Your task to perform on an android device: check out phone information Image 0: 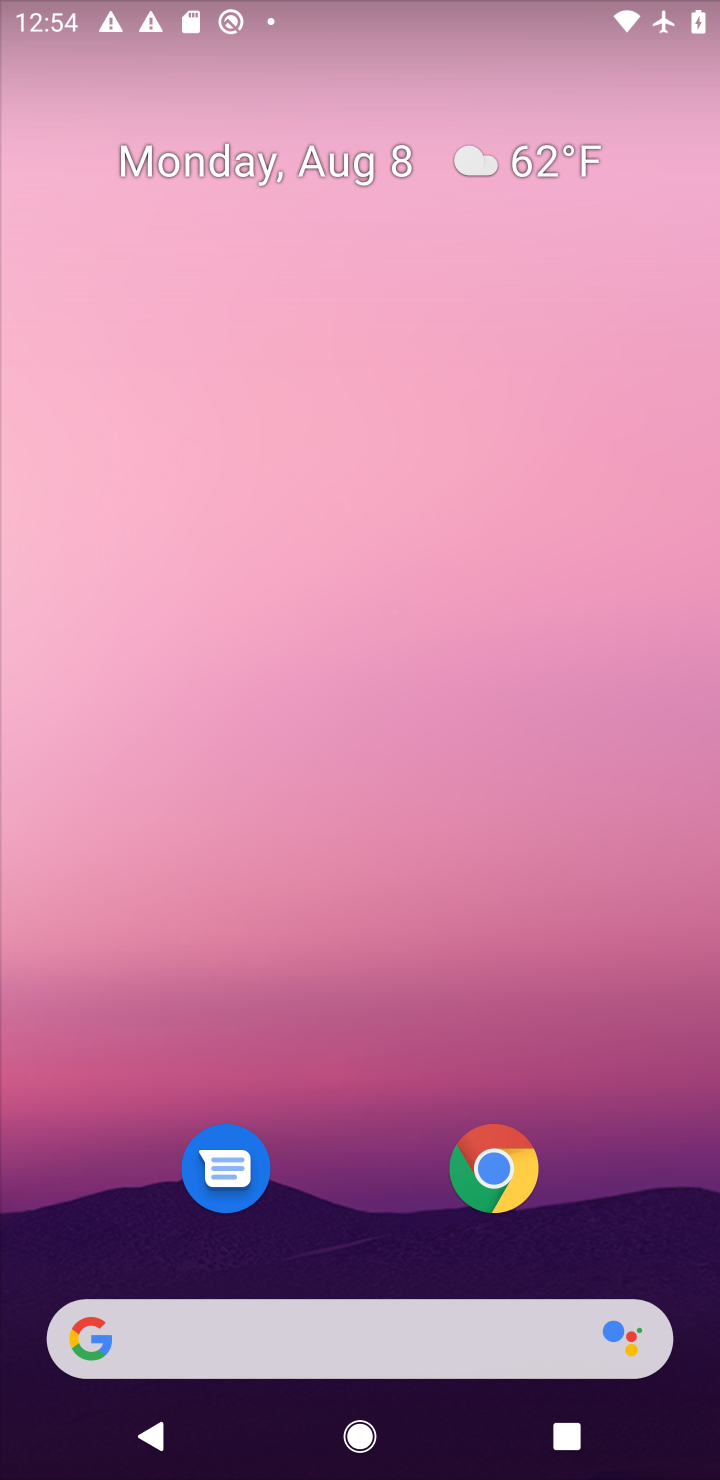
Step 0: drag from (377, 1277) to (366, 116)
Your task to perform on an android device: check out phone information Image 1: 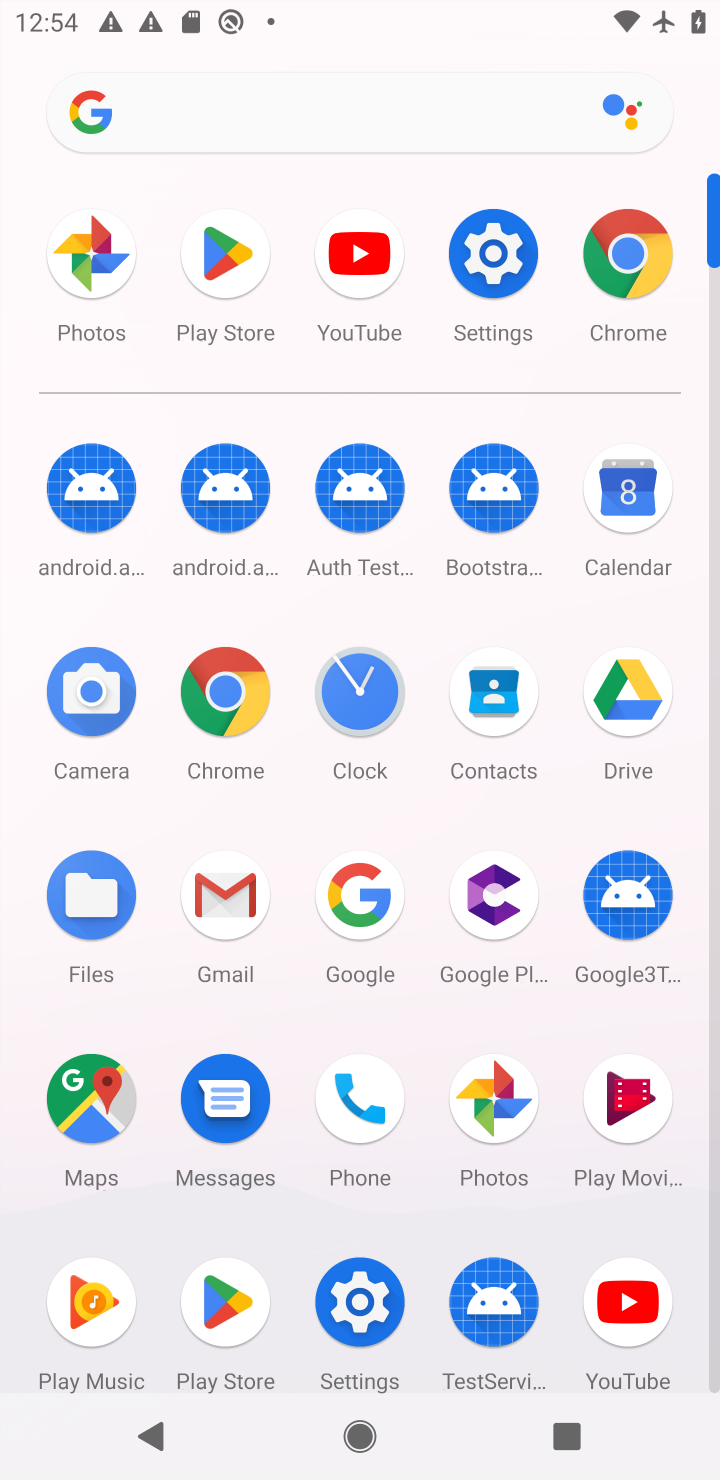
Step 1: click (470, 280)
Your task to perform on an android device: check out phone information Image 2: 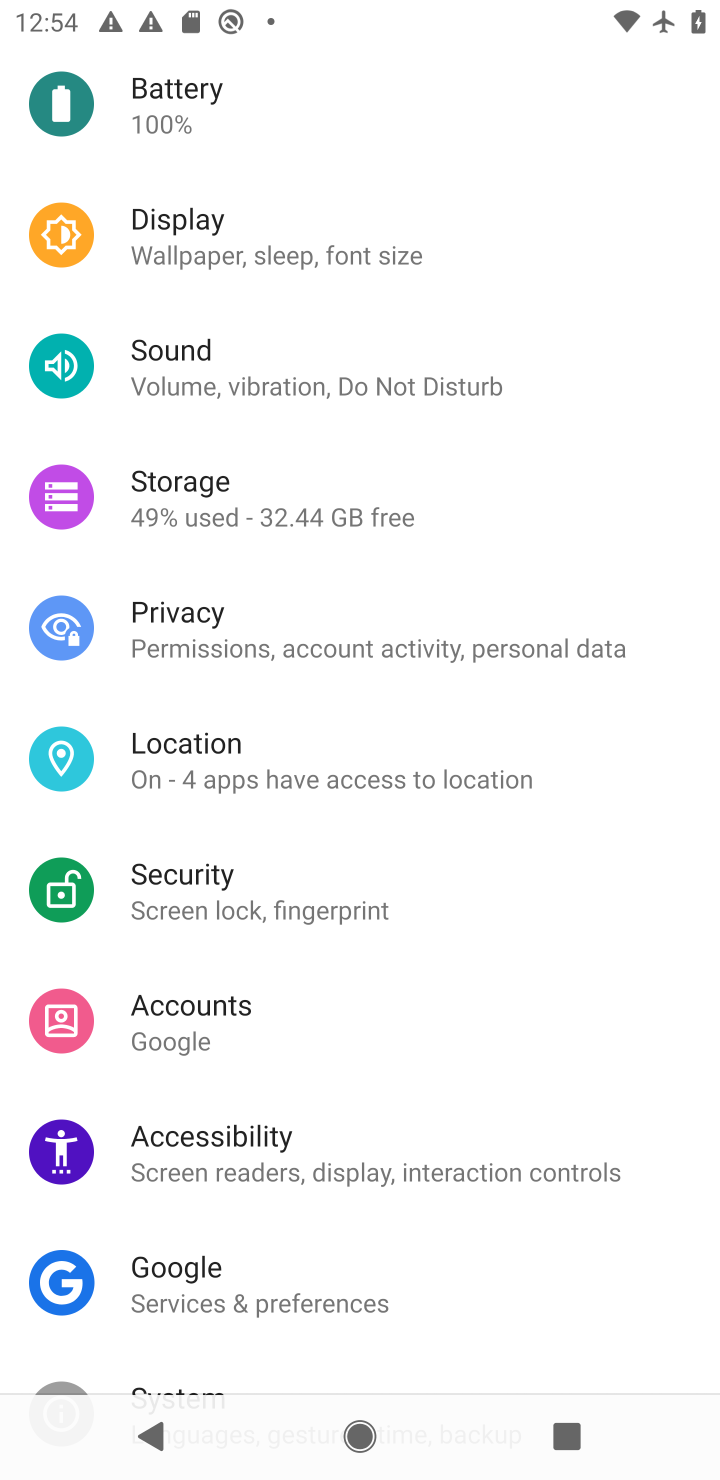
Step 2: task complete